Your task to perform on an android device: Go to display settings Image 0: 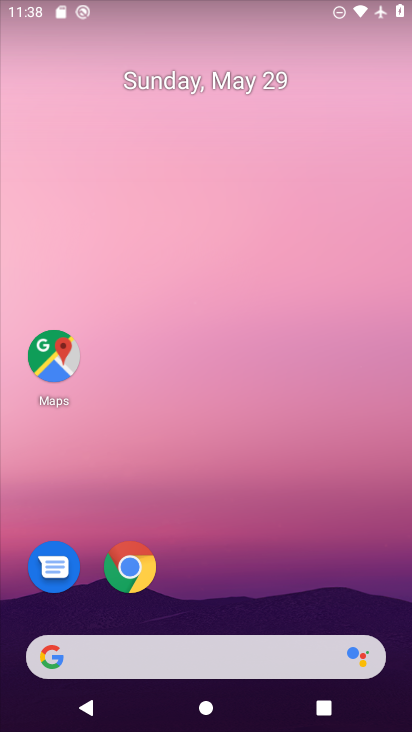
Step 0: drag from (384, 613) to (292, 78)
Your task to perform on an android device: Go to display settings Image 1: 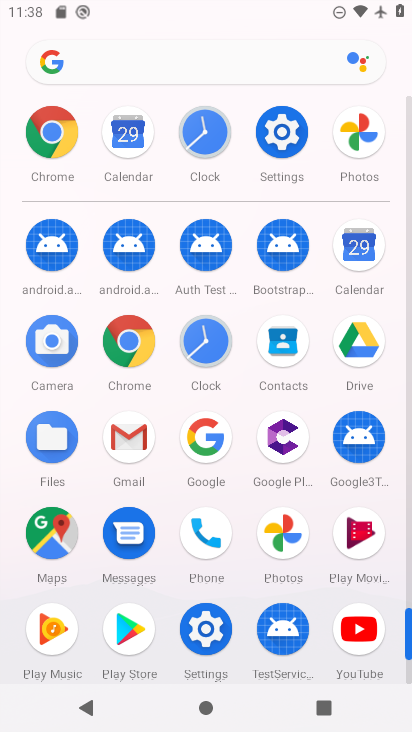
Step 1: click (408, 666)
Your task to perform on an android device: Go to display settings Image 2: 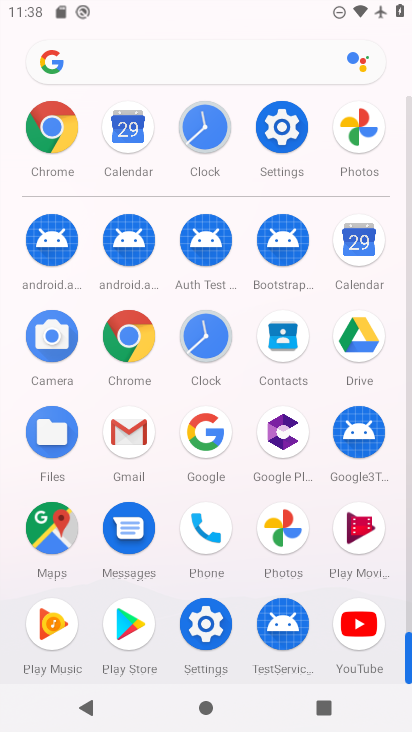
Step 2: click (204, 624)
Your task to perform on an android device: Go to display settings Image 3: 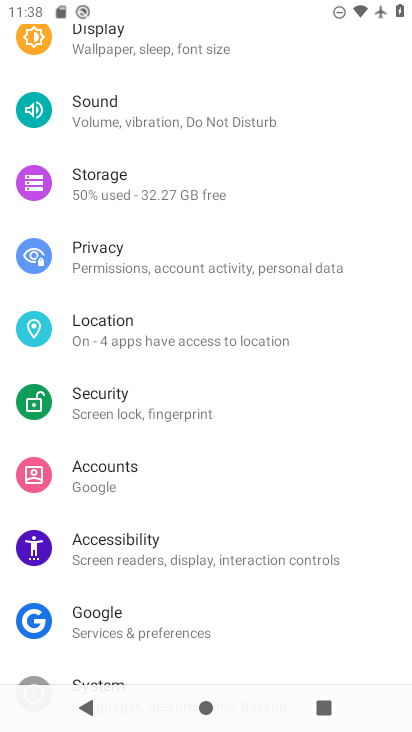
Step 3: drag from (299, 167) to (371, 675)
Your task to perform on an android device: Go to display settings Image 4: 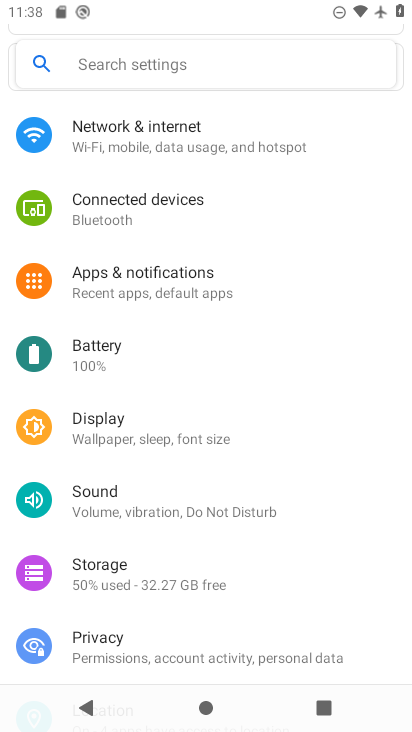
Step 4: click (100, 425)
Your task to perform on an android device: Go to display settings Image 5: 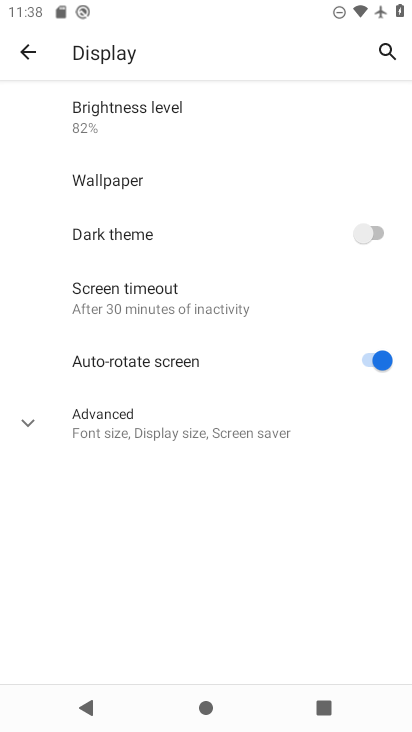
Step 5: click (24, 424)
Your task to perform on an android device: Go to display settings Image 6: 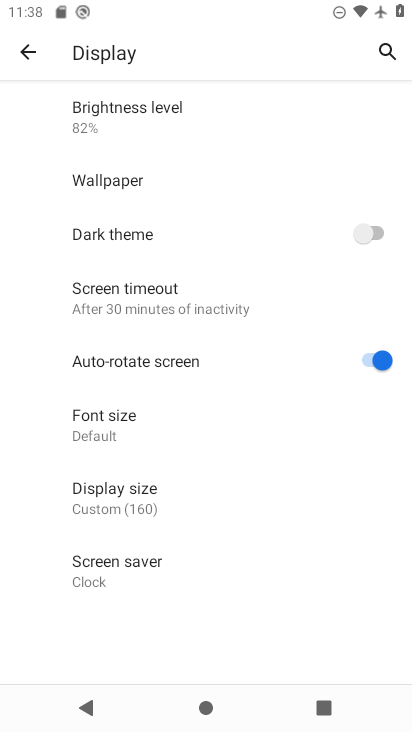
Step 6: task complete